Your task to perform on an android device: Open Youtube and go to "Your channel" Image 0: 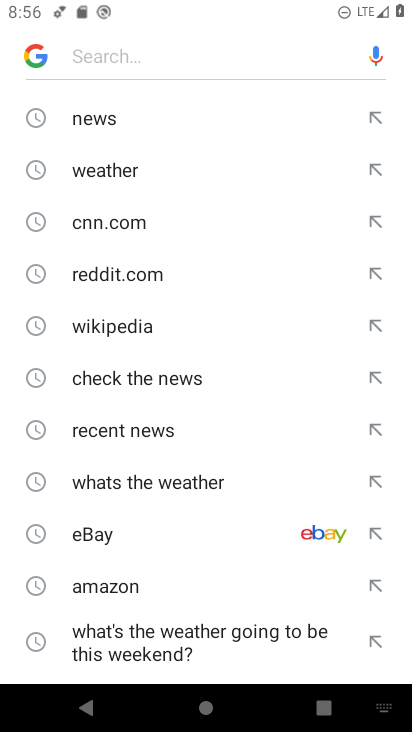
Step 0: press home button
Your task to perform on an android device: Open Youtube and go to "Your channel" Image 1: 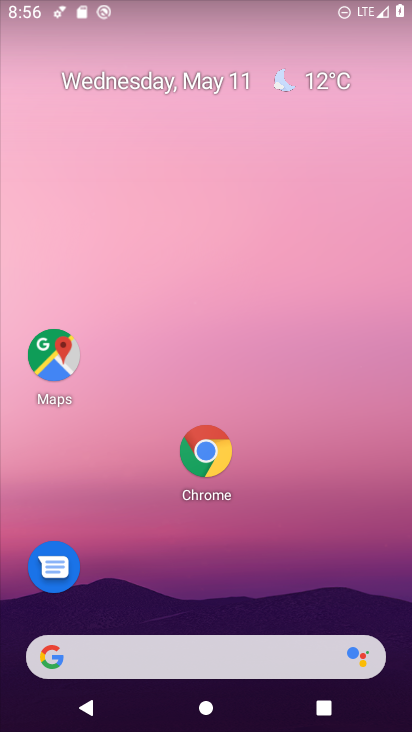
Step 1: drag from (196, 655) to (303, 134)
Your task to perform on an android device: Open Youtube and go to "Your channel" Image 2: 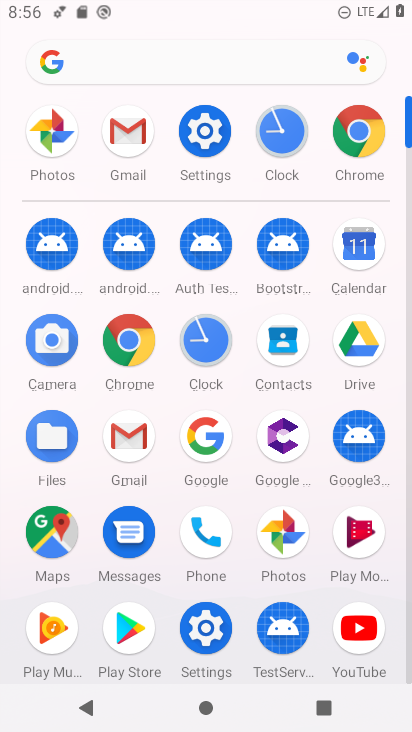
Step 2: click (360, 628)
Your task to perform on an android device: Open Youtube and go to "Your channel" Image 3: 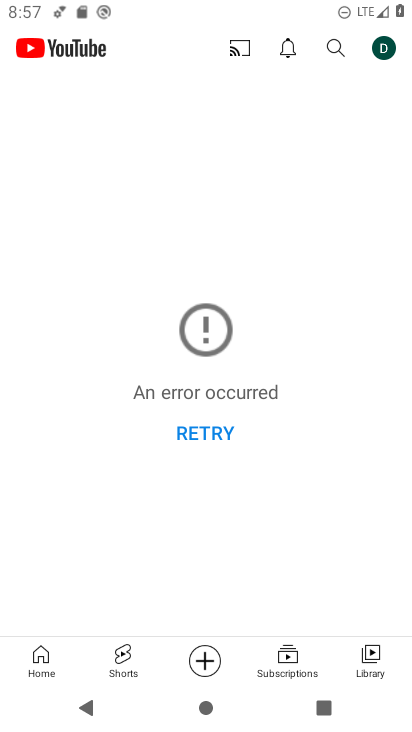
Step 3: click (212, 424)
Your task to perform on an android device: Open Youtube and go to "Your channel" Image 4: 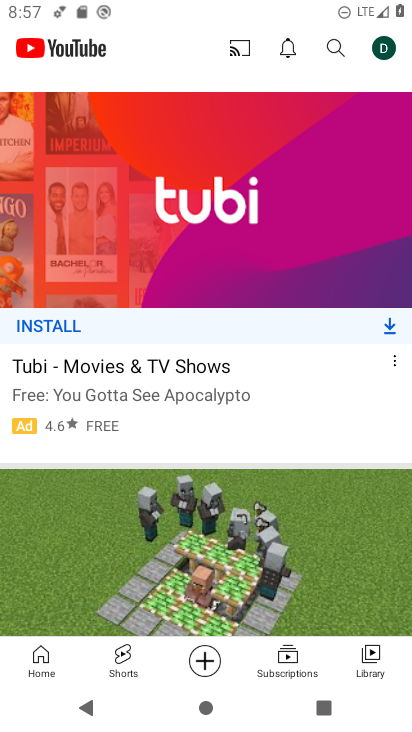
Step 4: click (387, 50)
Your task to perform on an android device: Open Youtube and go to "Your channel" Image 5: 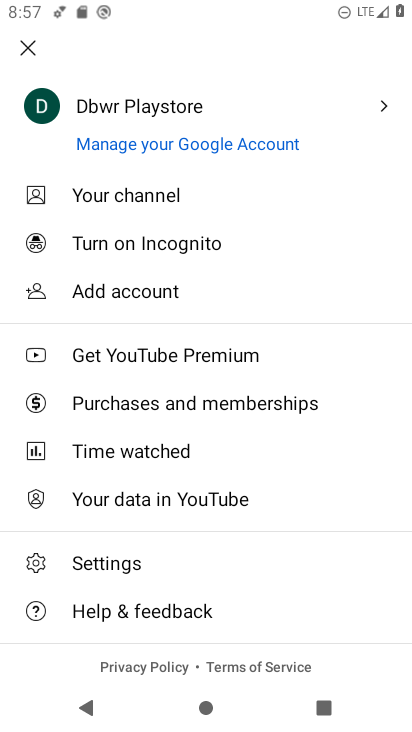
Step 5: click (143, 193)
Your task to perform on an android device: Open Youtube and go to "Your channel" Image 6: 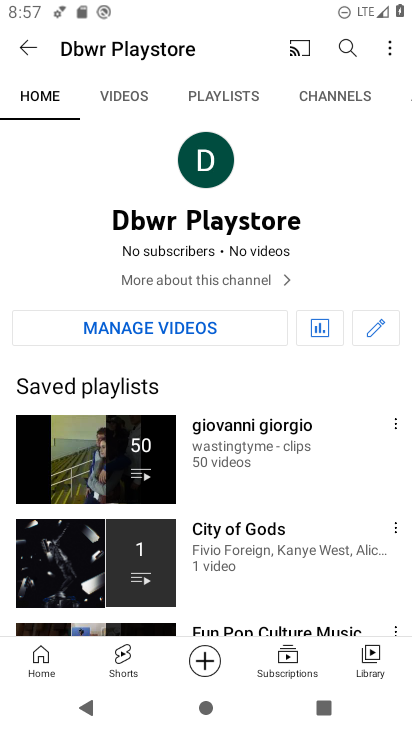
Step 6: task complete